Your task to perform on an android device: Open Youtube and go to the subscriptions tab Image 0: 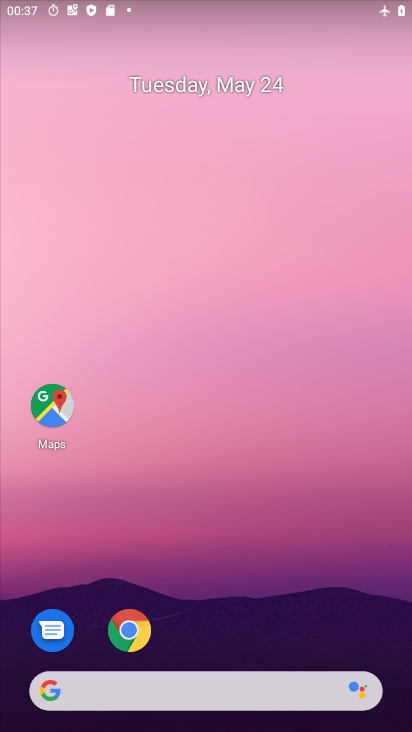
Step 0: drag from (326, 654) to (333, 0)
Your task to perform on an android device: Open Youtube and go to the subscriptions tab Image 1: 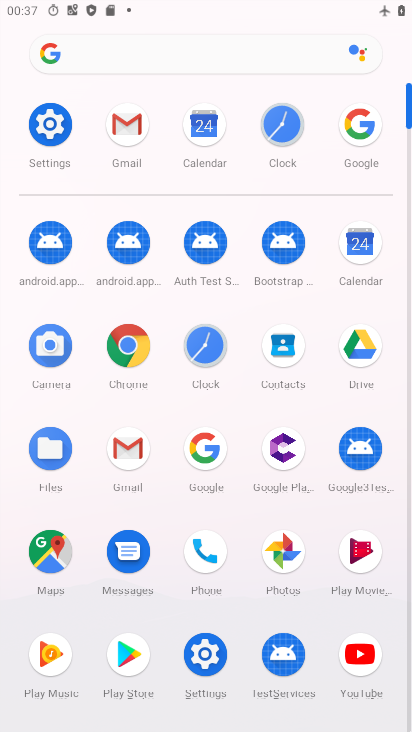
Step 1: click (356, 649)
Your task to perform on an android device: Open Youtube and go to the subscriptions tab Image 2: 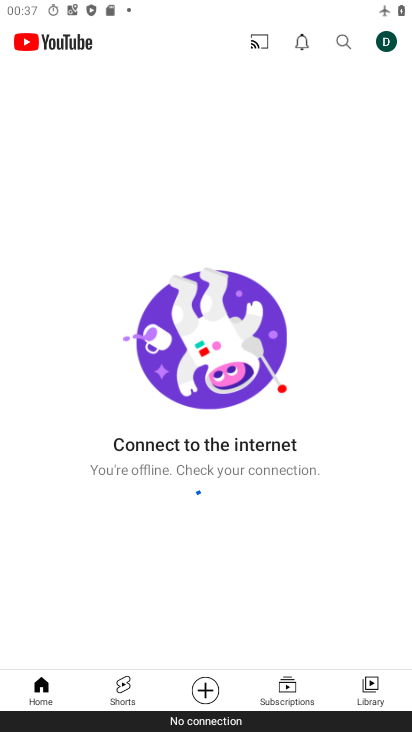
Step 2: click (290, 695)
Your task to perform on an android device: Open Youtube and go to the subscriptions tab Image 3: 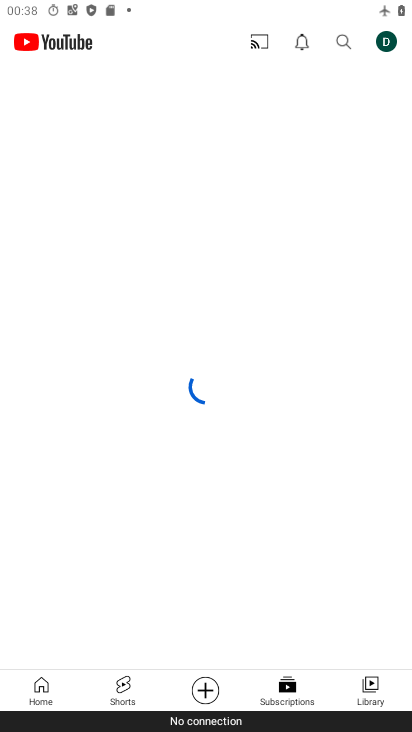
Step 3: task complete